Your task to perform on an android device: change text size in settings app Image 0: 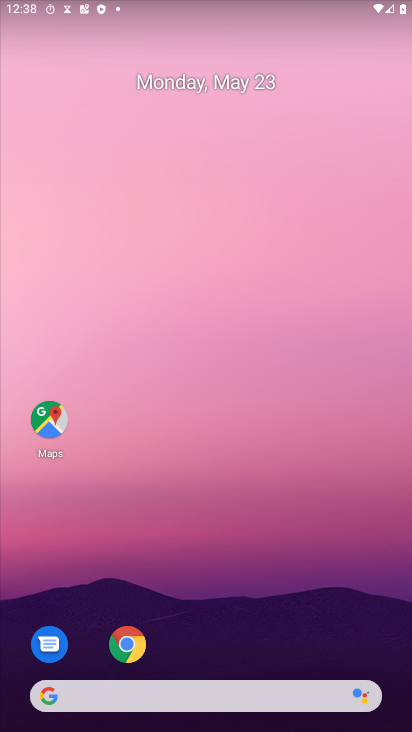
Step 0: drag from (283, 647) to (309, 74)
Your task to perform on an android device: change text size in settings app Image 1: 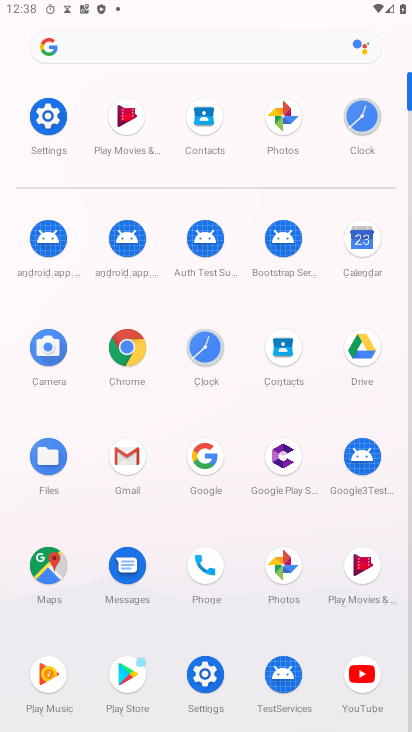
Step 1: click (50, 115)
Your task to perform on an android device: change text size in settings app Image 2: 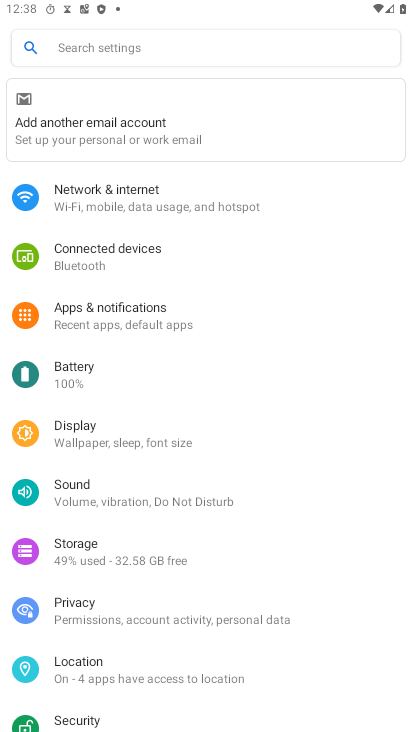
Step 2: click (106, 440)
Your task to perform on an android device: change text size in settings app Image 3: 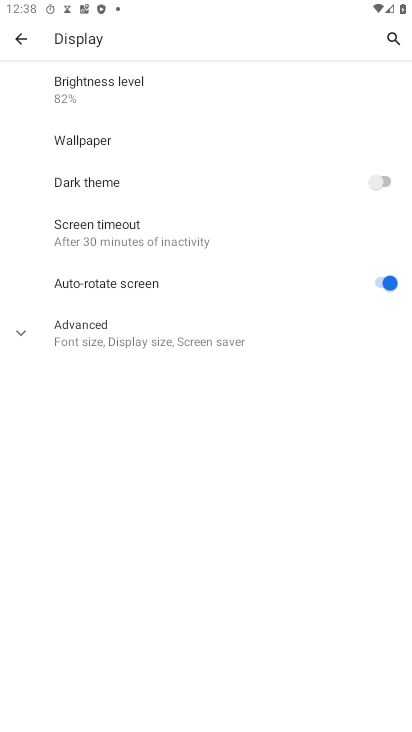
Step 3: click (167, 339)
Your task to perform on an android device: change text size in settings app Image 4: 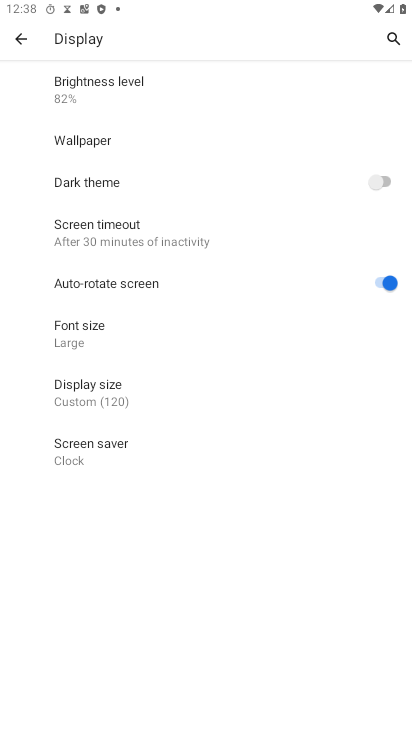
Step 4: click (69, 336)
Your task to perform on an android device: change text size in settings app Image 5: 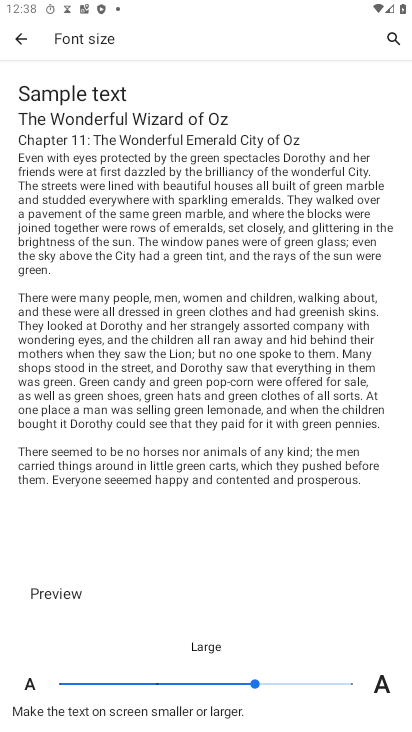
Step 5: click (347, 682)
Your task to perform on an android device: change text size in settings app Image 6: 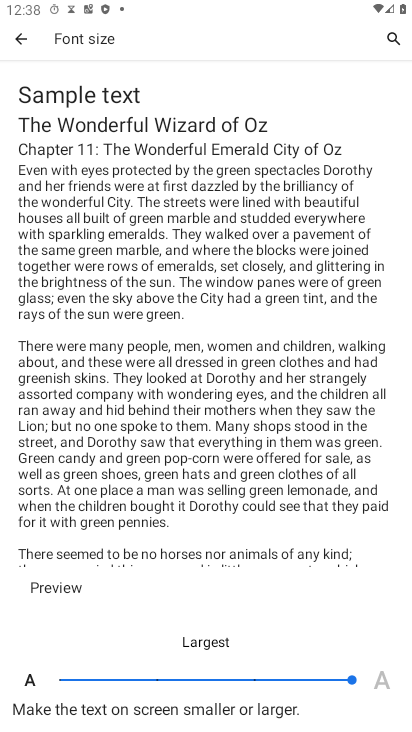
Step 6: task complete